Your task to perform on an android device: allow notifications from all sites in the chrome app Image 0: 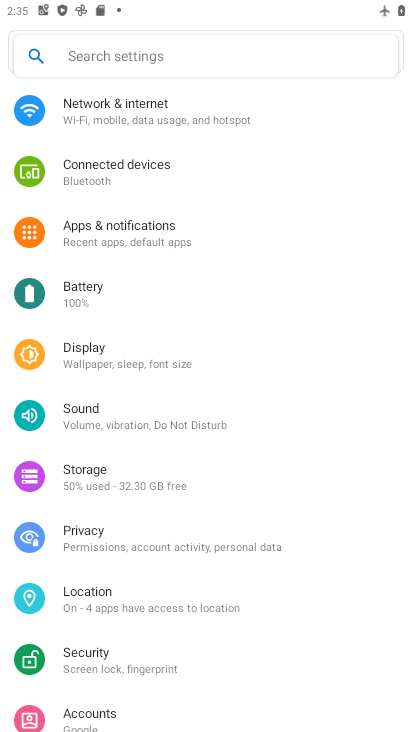
Step 0: press home button
Your task to perform on an android device: allow notifications from all sites in the chrome app Image 1: 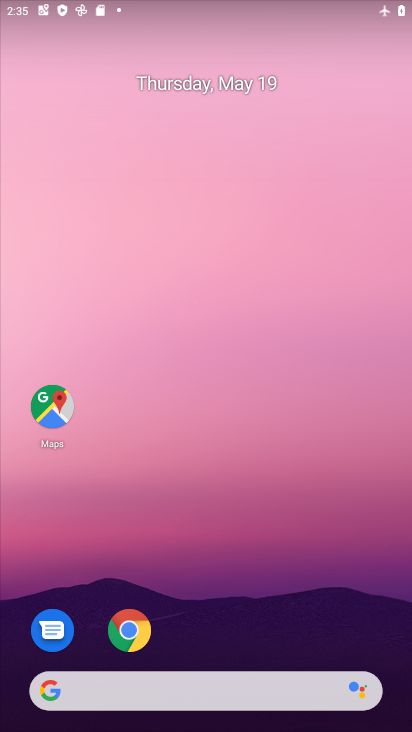
Step 1: click (128, 636)
Your task to perform on an android device: allow notifications from all sites in the chrome app Image 2: 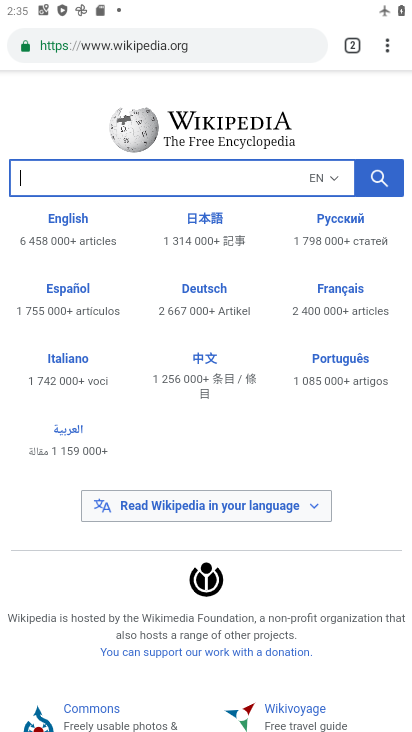
Step 2: click (385, 50)
Your task to perform on an android device: allow notifications from all sites in the chrome app Image 3: 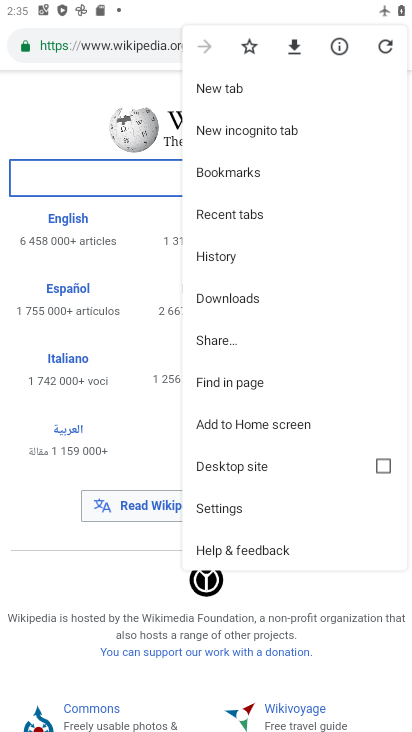
Step 3: click (227, 502)
Your task to perform on an android device: allow notifications from all sites in the chrome app Image 4: 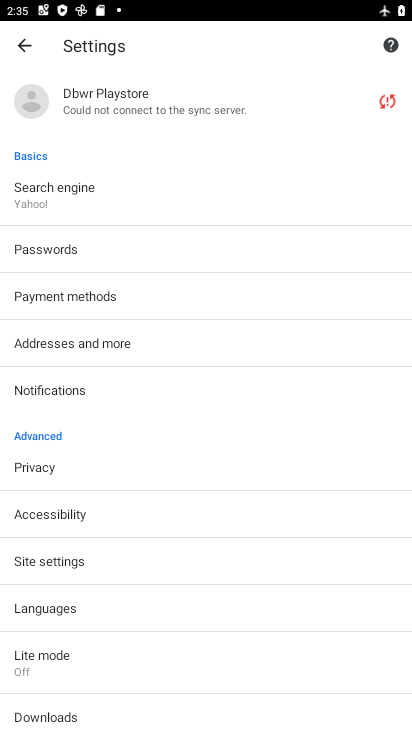
Step 4: click (48, 559)
Your task to perform on an android device: allow notifications from all sites in the chrome app Image 5: 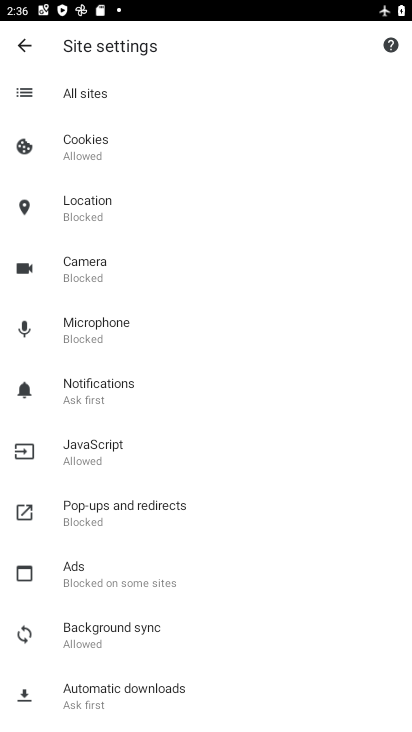
Step 5: click (76, 387)
Your task to perform on an android device: allow notifications from all sites in the chrome app Image 6: 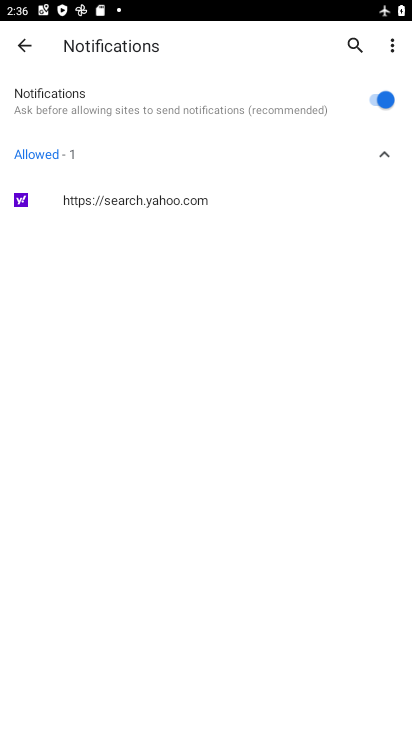
Step 6: task complete